Your task to perform on an android device: visit the assistant section in the google photos Image 0: 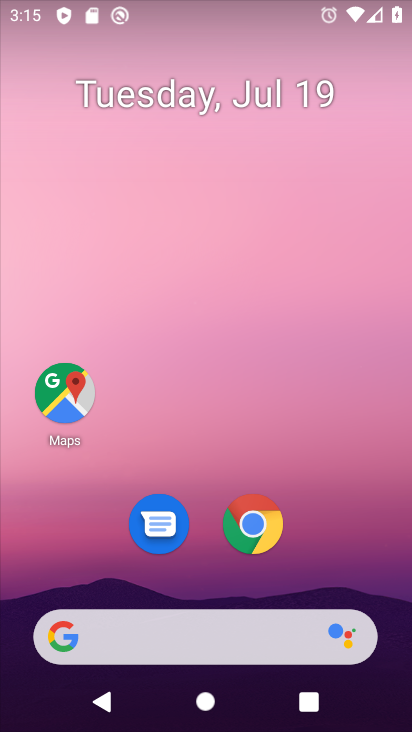
Step 0: drag from (336, 472) to (283, 24)
Your task to perform on an android device: visit the assistant section in the google photos Image 1: 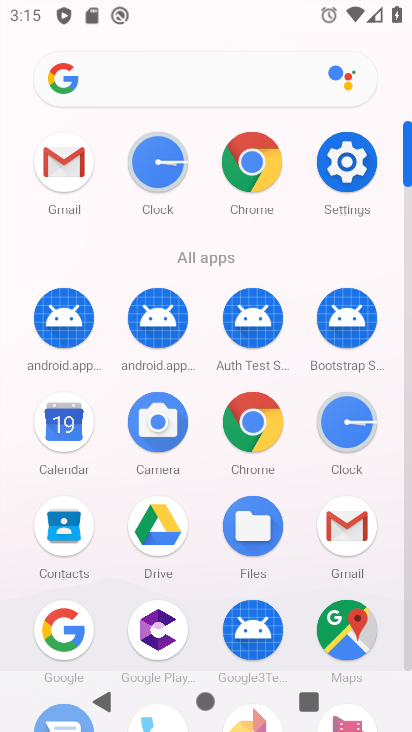
Step 1: drag from (199, 578) to (229, 204)
Your task to perform on an android device: visit the assistant section in the google photos Image 2: 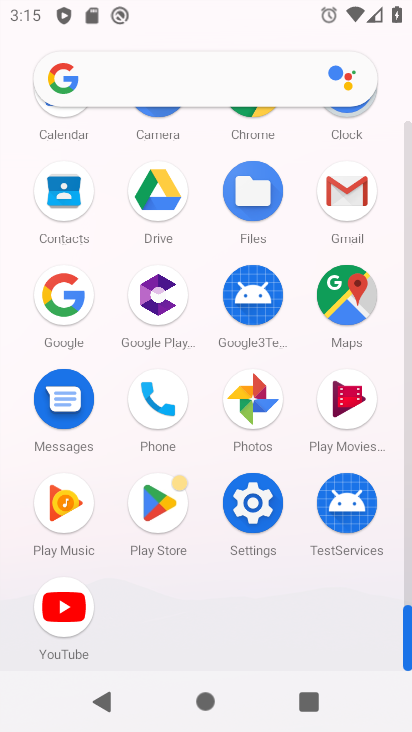
Step 2: click (259, 393)
Your task to perform on an android device: visit the assistant section in the google photos Image 3: 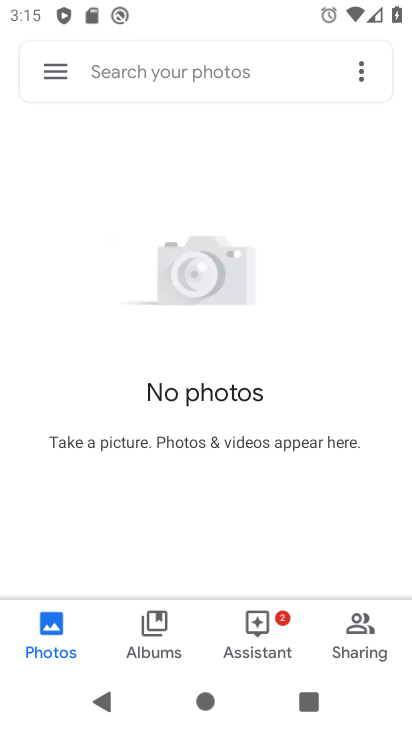
Step 3: click (267, 628)
Your task to perform on an android device: visit the assistant section in the google photos Image 4: 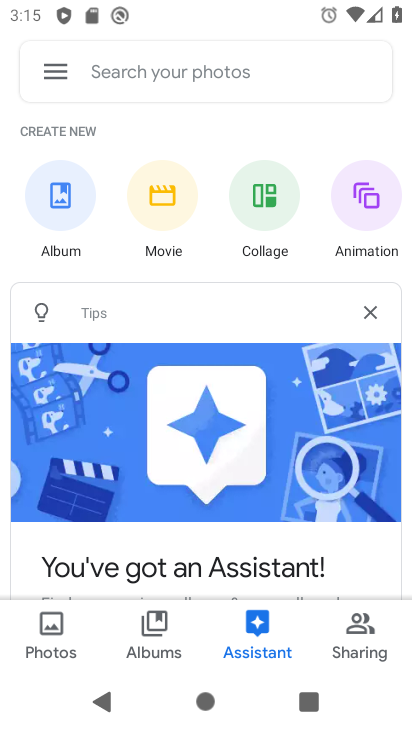
Step 4: task complete